Your task to perform on an android device: change timer sound Image 0: 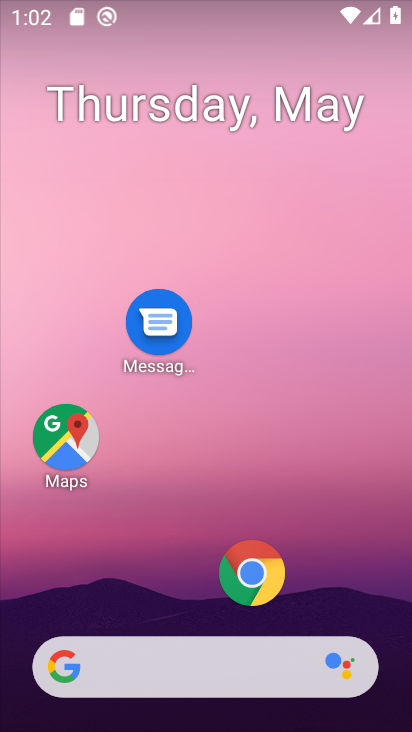
Step 0: drag from (190, 573) to (285, 240)
Your task to perform on an android device: change timer sound Image 1: 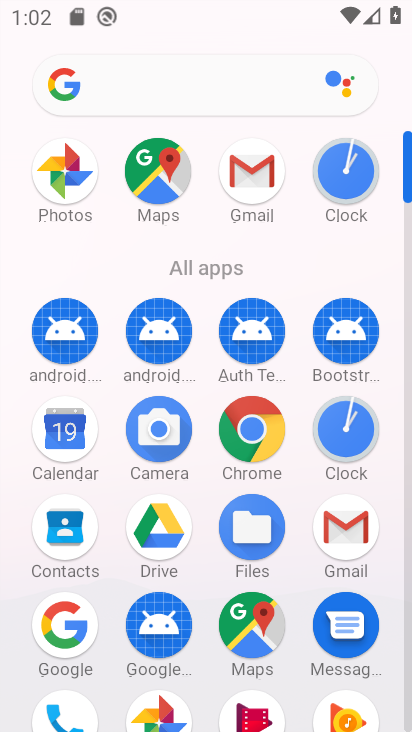
Step 1: click (344, 419)
Your task to perform on an android device: change timer sound Image 2: 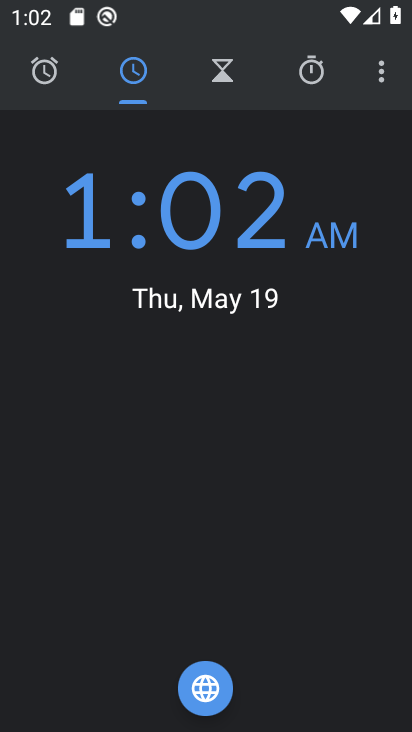
Step 2: click (382, 67)
Your task to perform on an android device: change timer sound Image 3: 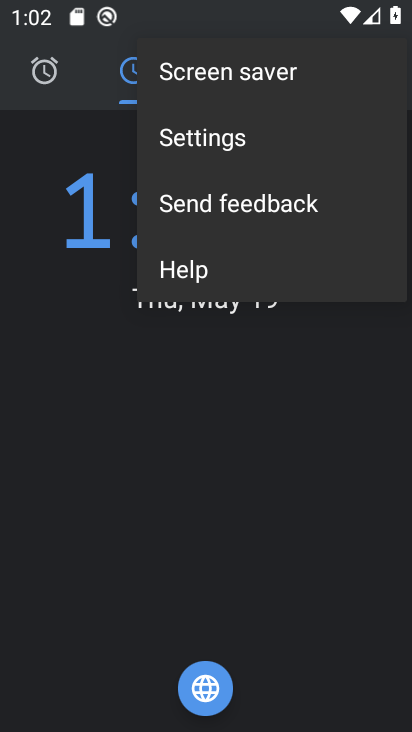
Step 3: click (260, 142)
Your task to perform on an android device: change timer sound Image 4: 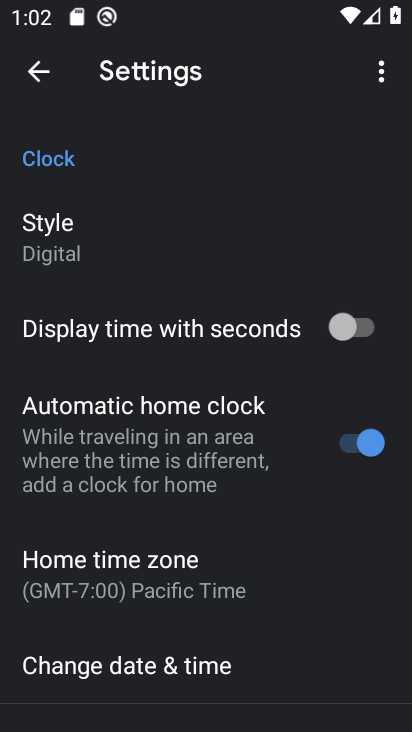
Step 4: drag from (170, 535) to (239, 146)
Your task to perform on an android device: change timer sound Image 5: 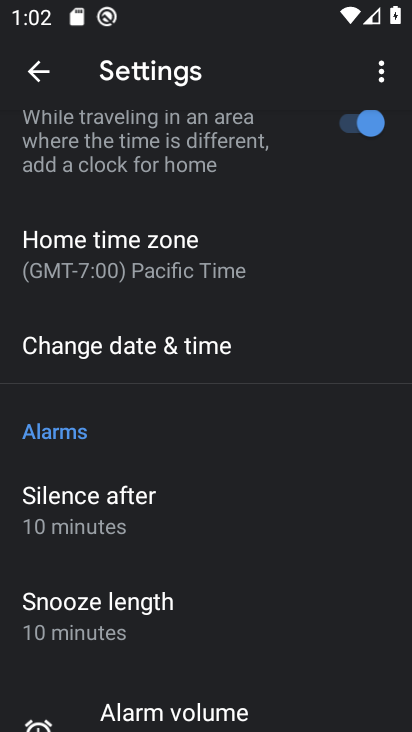
Step 5: drag from (163, 642) to (243, 114)
Your task to perform on an android device: change timer sound Image 6: 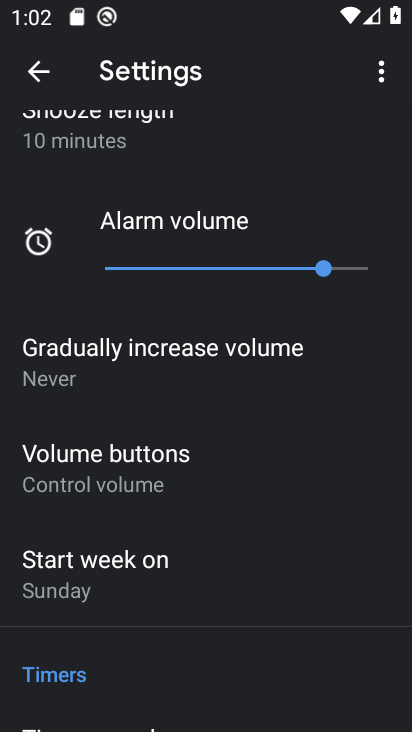
Step 6: drag from (163, 525) to (192, 166)
Your task to perform on an android device: change timer sound Image 7: 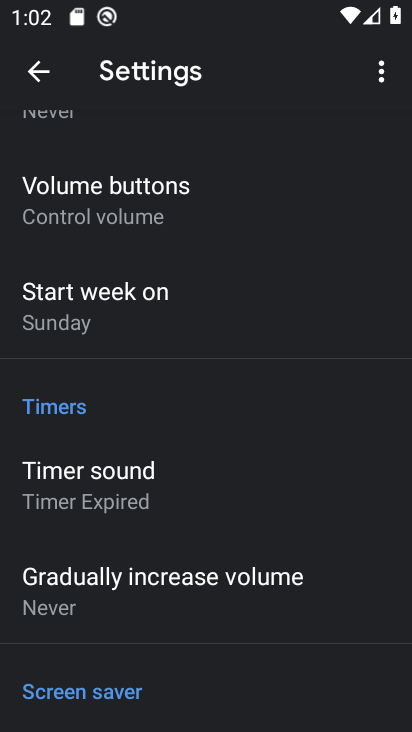
Step 7: click (127, 512)
Your task to perform on an android device: change timer sound Image 8: 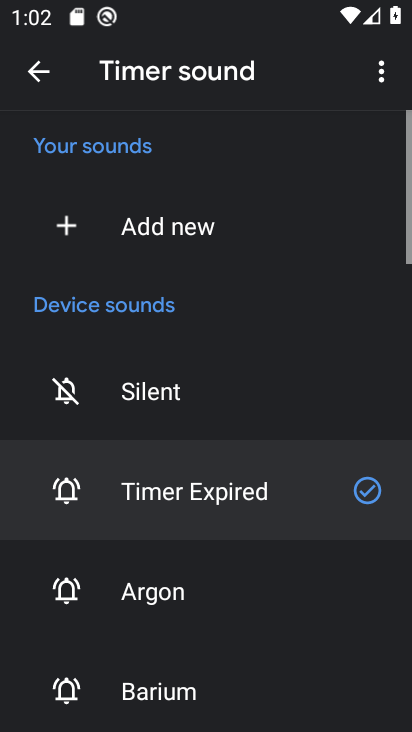
Step 8: click (242, 602)
Your task to perform on an android device: change timer sound Image 9: 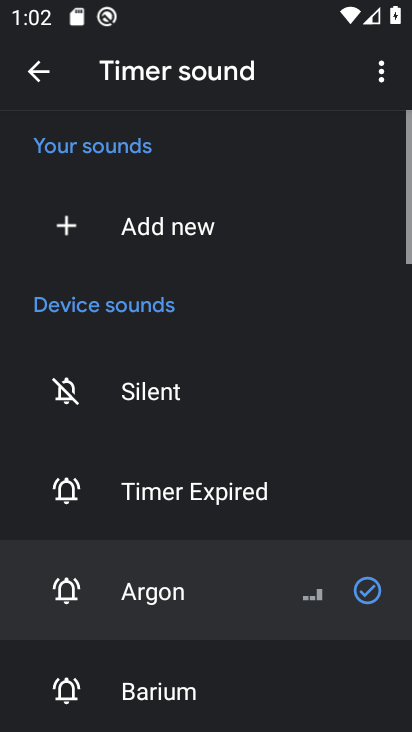
Step 9: task complete